Your task to perform on an android device: allow notifications from all sites in the chrome app Image 0: 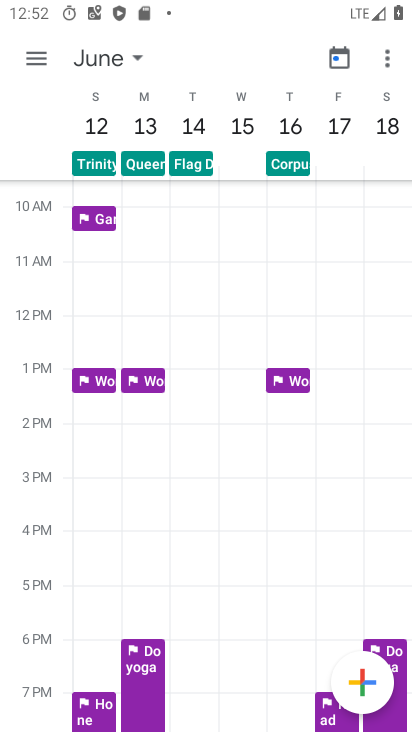
Step 0: press home button
Your task to perform on an android device: allow notifications from all sites in the chrome app Image 1: 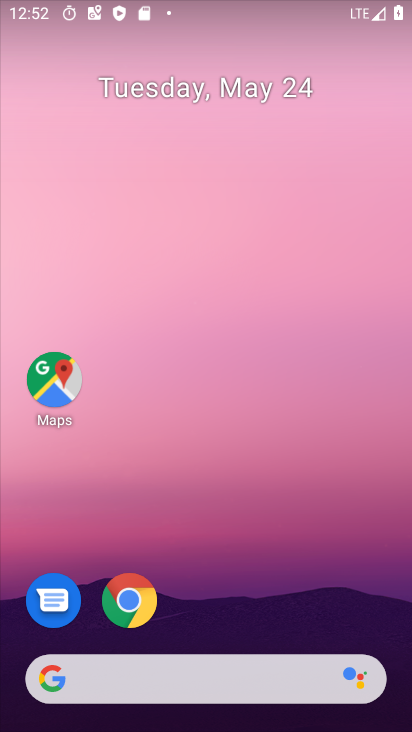
Step 1: click (135, 597)
Your task to perform on an android device: allow notifications from all sites in the chrome app Image 2: 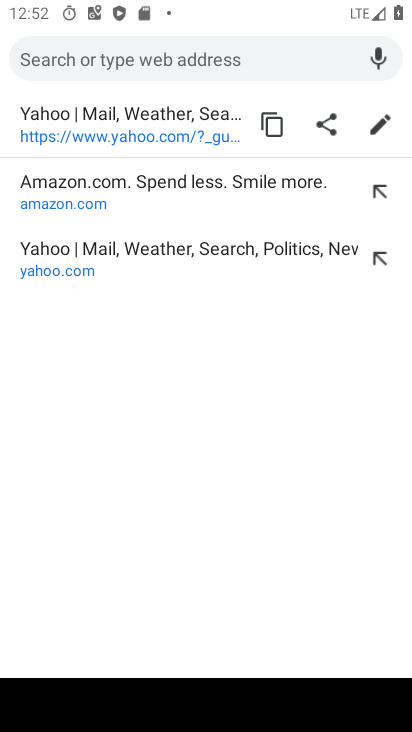
Step 2: press back button
Your task to perform on an android device: allow notifications from all sites in the chrome app Image 3: 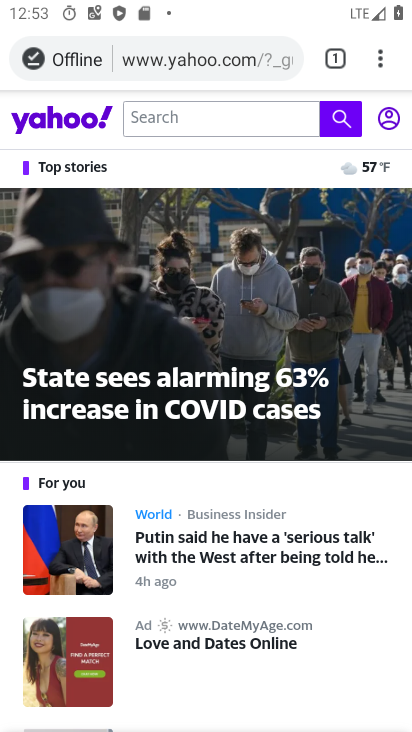
Step 3: click (381, 64)
Your task to perform on an android device: allow notifications from all sites in the chrome app Image 4: 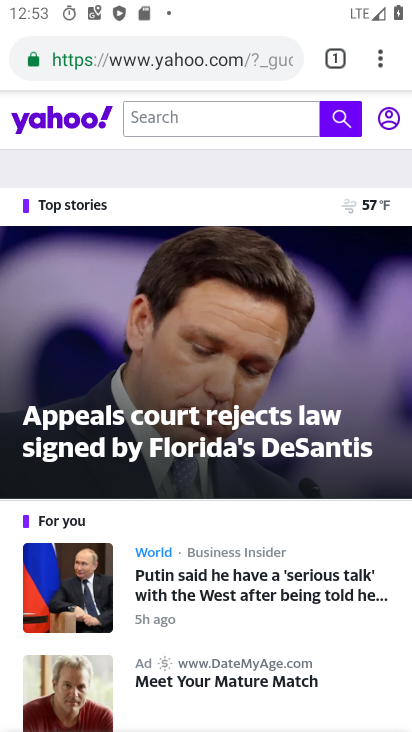
Step 4: drag from (381, 54) to (212, 630)
Your task to perform on an android device: allow notifications from all sites in the chrome app Image 5: 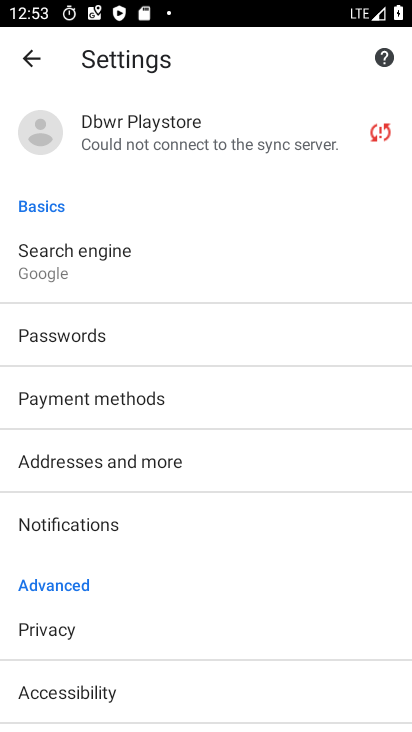
Step 5: drag from (196, 557) to (212, 335)
Your task to perform on an android device: allow notifications from all sites in the chrome app Image 6: 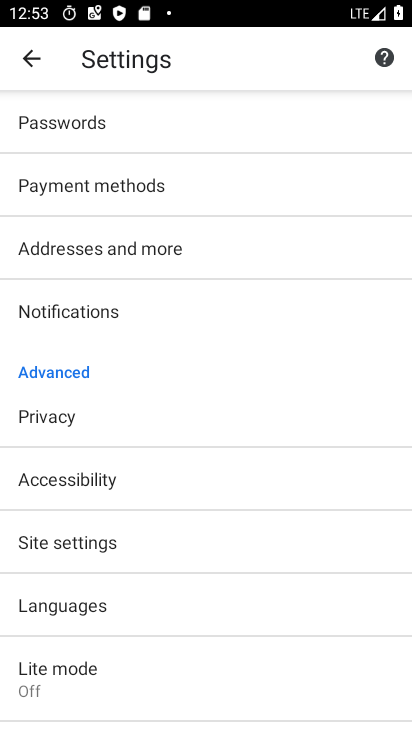
Step 6: click (98, 321)
Your task to perform on an android device: allow notifications from all sites in the chrome app Image 7: 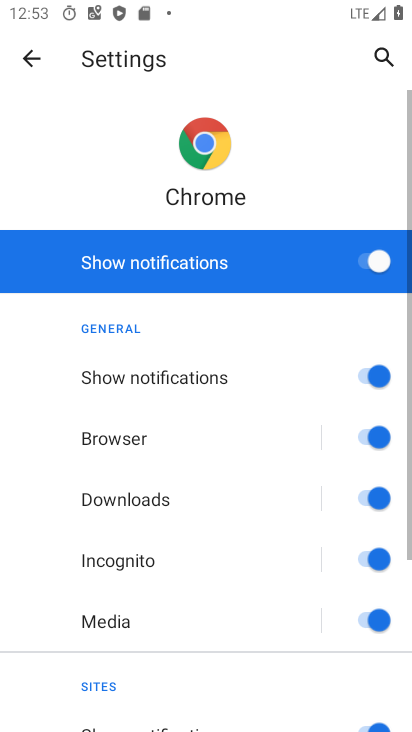
Step 7: task complete